Your task to perform on an android device: Search for vegetarian restaurants on Maps Image 0: 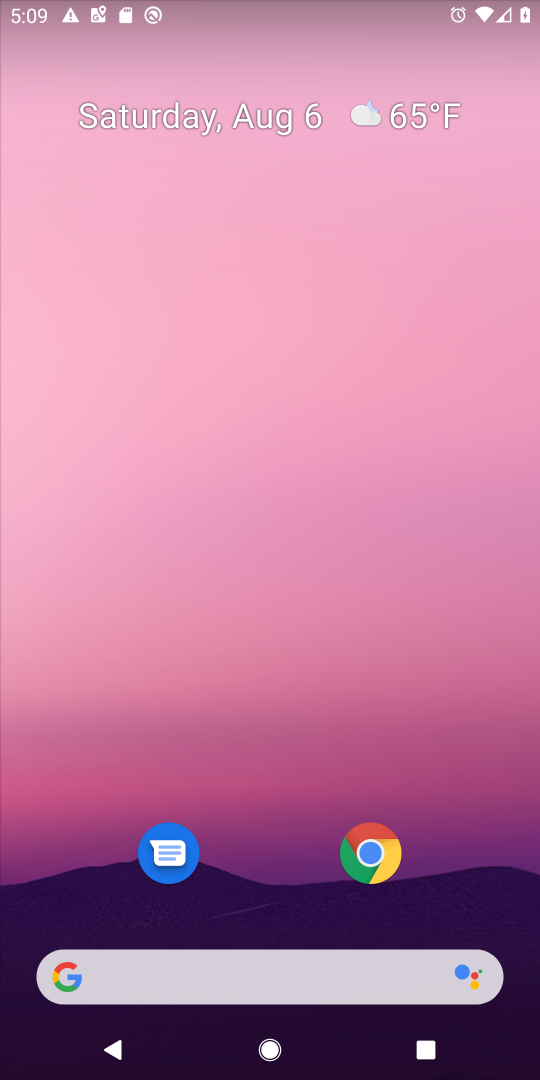
Step 0: drag from (211, 738) to (0, 629)
Your task to perform on an android device: Search for vegetarian restaurants on Maps Image 1: 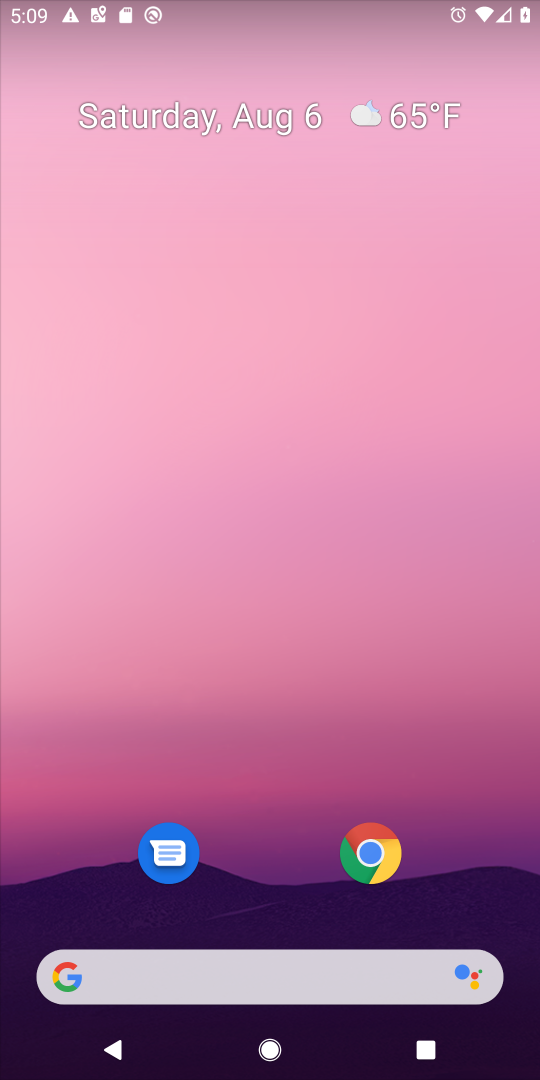
Step 1: drag from (297, 787) to (334, 10)
Your task to perform on an android device: Search for vegetarian restaurants on Maps Image 2: 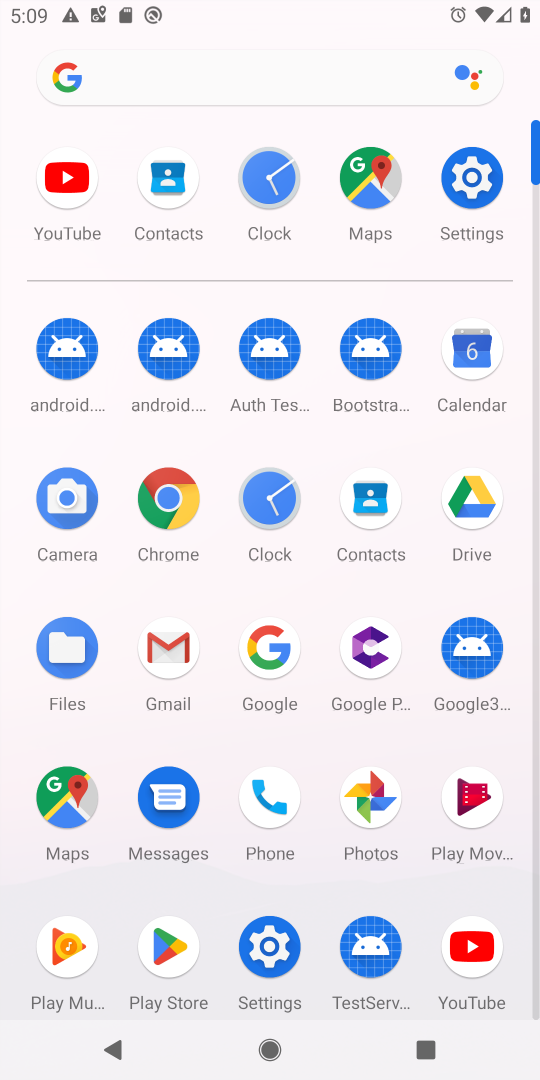
Step 2: click (385, 189)
Your task to perform on an android device: Search for vegetarian restaurants on Maps Image 3: 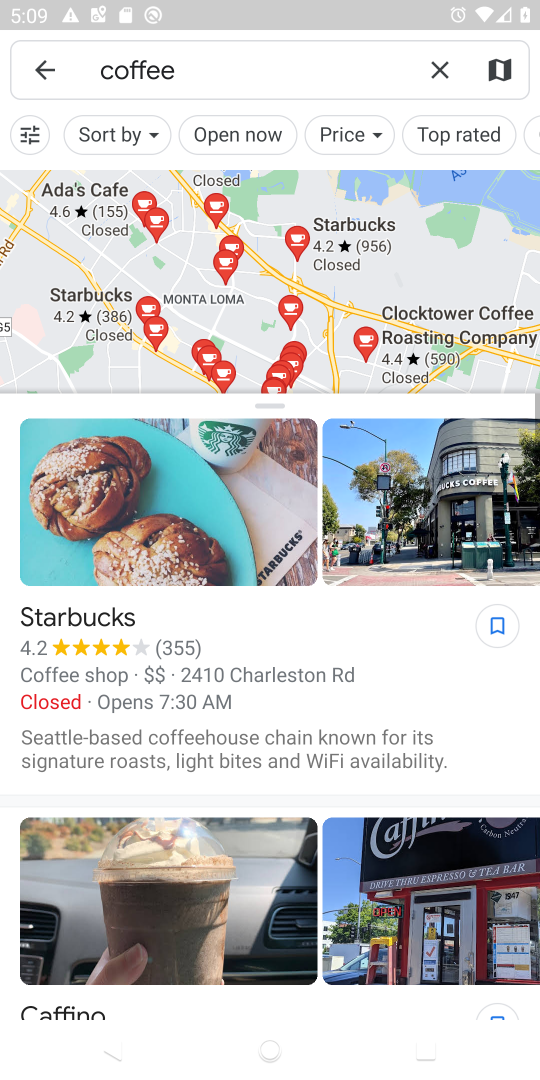
Step 3: click (440, 67)
Your task to perform on an android device: Search for vegetarian restaurants on Maps Image 4: 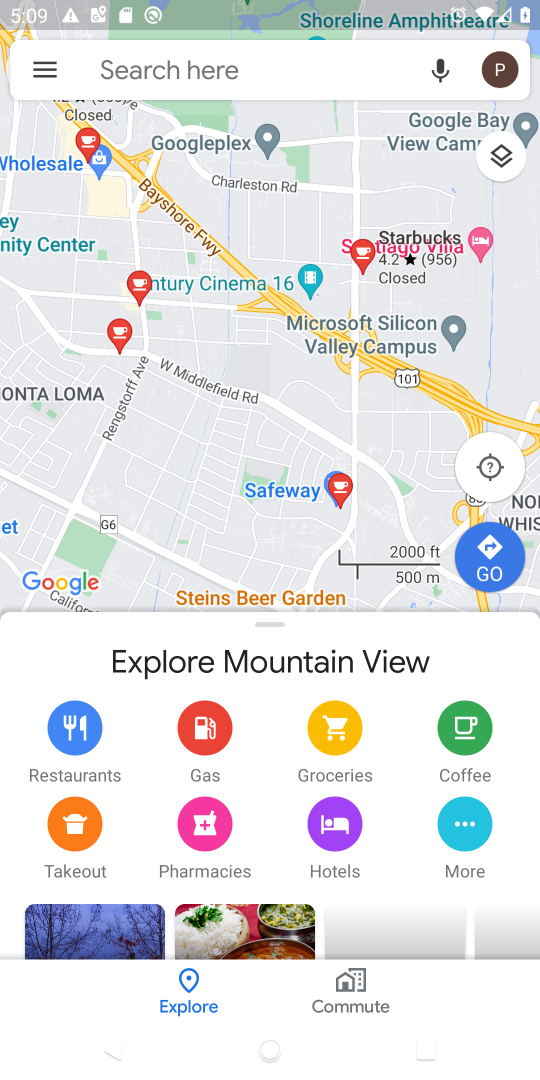
Step 4: click (252, 77)
Your task to perform on an android device: Search for vegetarian restaurants on Maps Image 5: 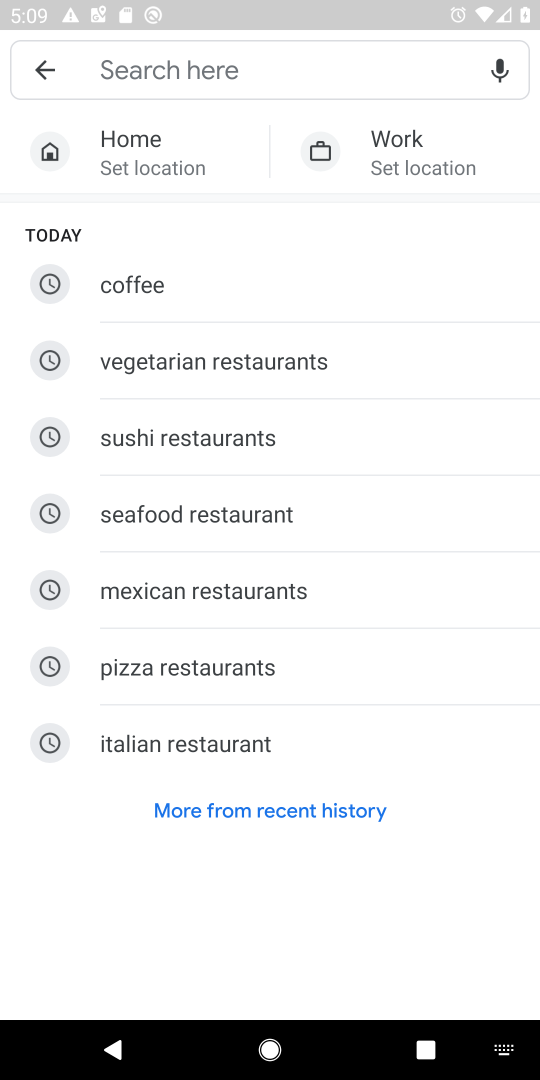
Step 5: click (201, 367)
Your task to perform on an android device: Search for vegetarian restaurants on Maps Image 6: 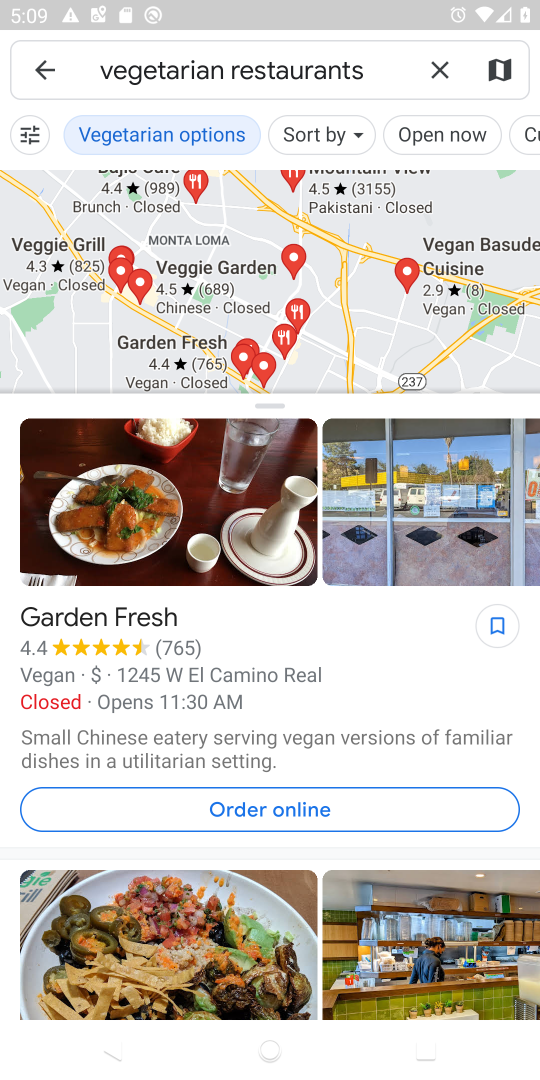
Step 6: task complete